Your task to perform on an android device: Do I have any events tomorrow? Image 0: 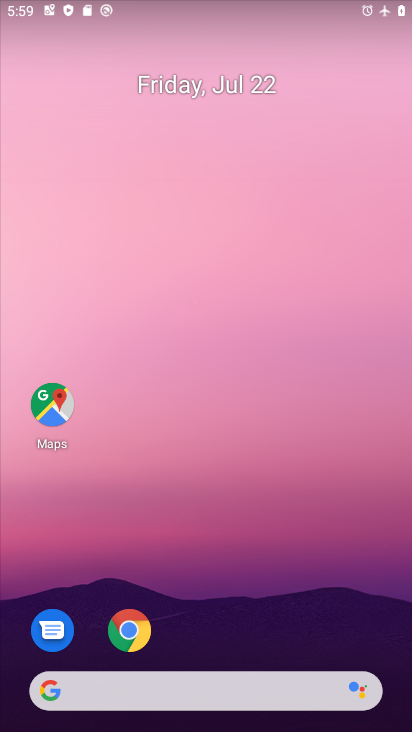
Step 0: drag from (301, 696) to (250, 1)
Your task to perform on an android device: Do I have any events tomorrow? Image 1: 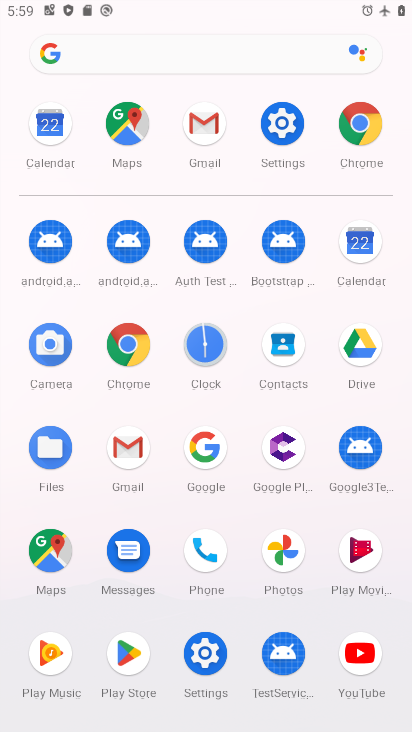
Step 1: click (359, 243)
Your task to perform on an android device: Do I have any events tomorrow? Image 2: 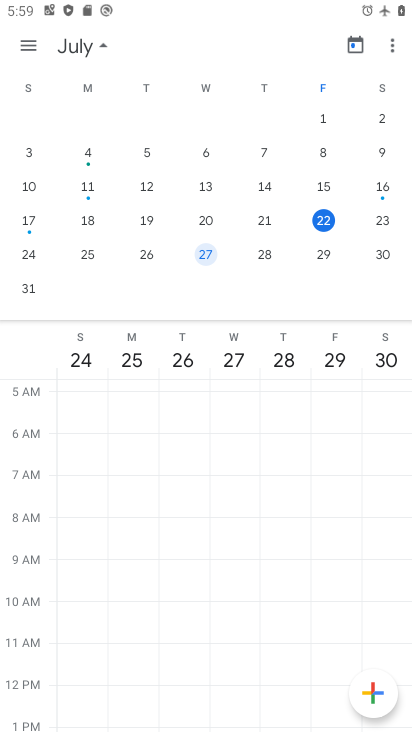
Step 2: click (381, 218)
Your task to perform on an android device: Do I have any events tomorrow? Image 3: 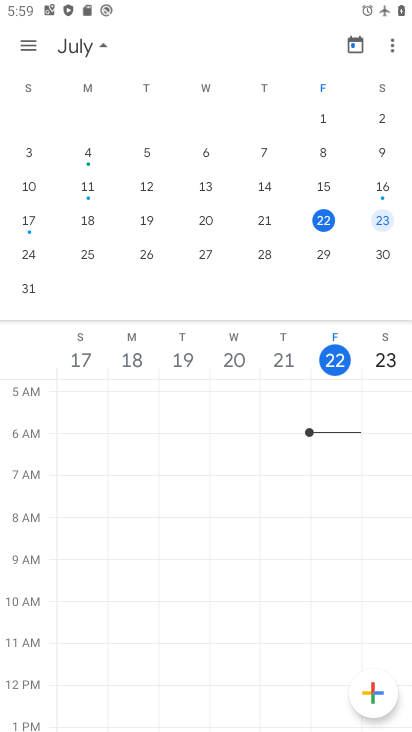
Step 3: task complete